Your task to perform on an android device: Search for dell alienware on amazon, select the first entry, add it to the cart, then select checkout. Image 0: 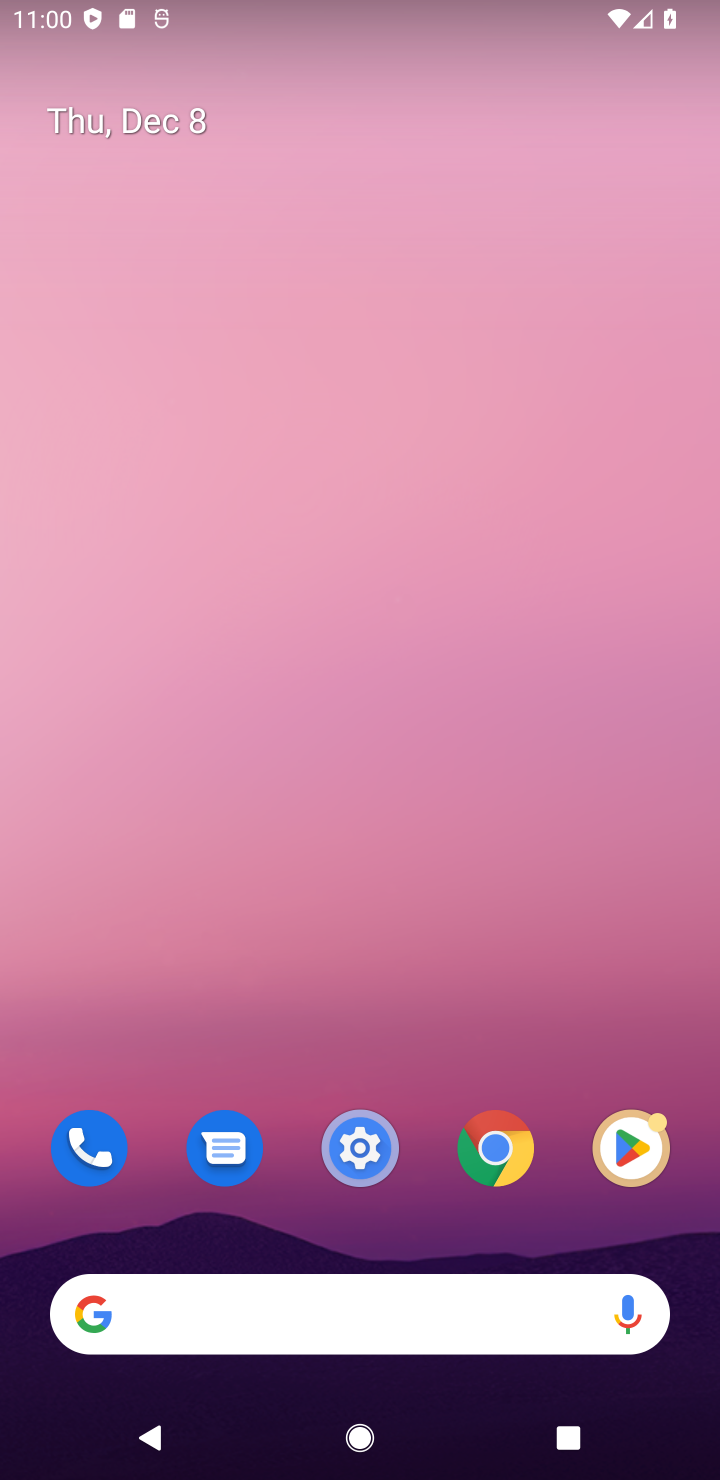
Step 0: click (340, 1315)
Your task to perform on an android device: Search for dell alienware on amazon, select the first entry, add it to the cart, then select checkout. Image 1: 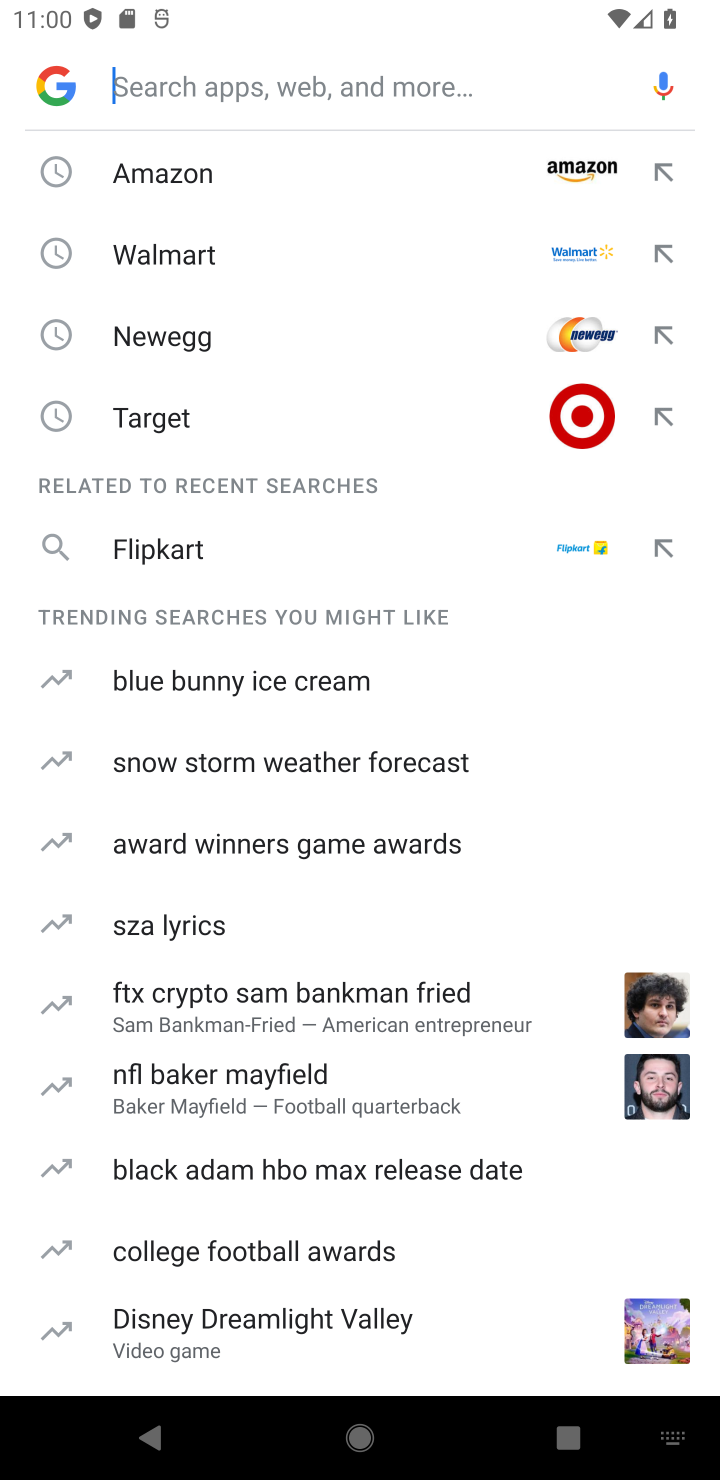
Step 1: click (147, 178)
Your task to perform on an android device: Search for dell alienware on amazon, select the first entry, add it to the cart, then select checkout. Image 2: 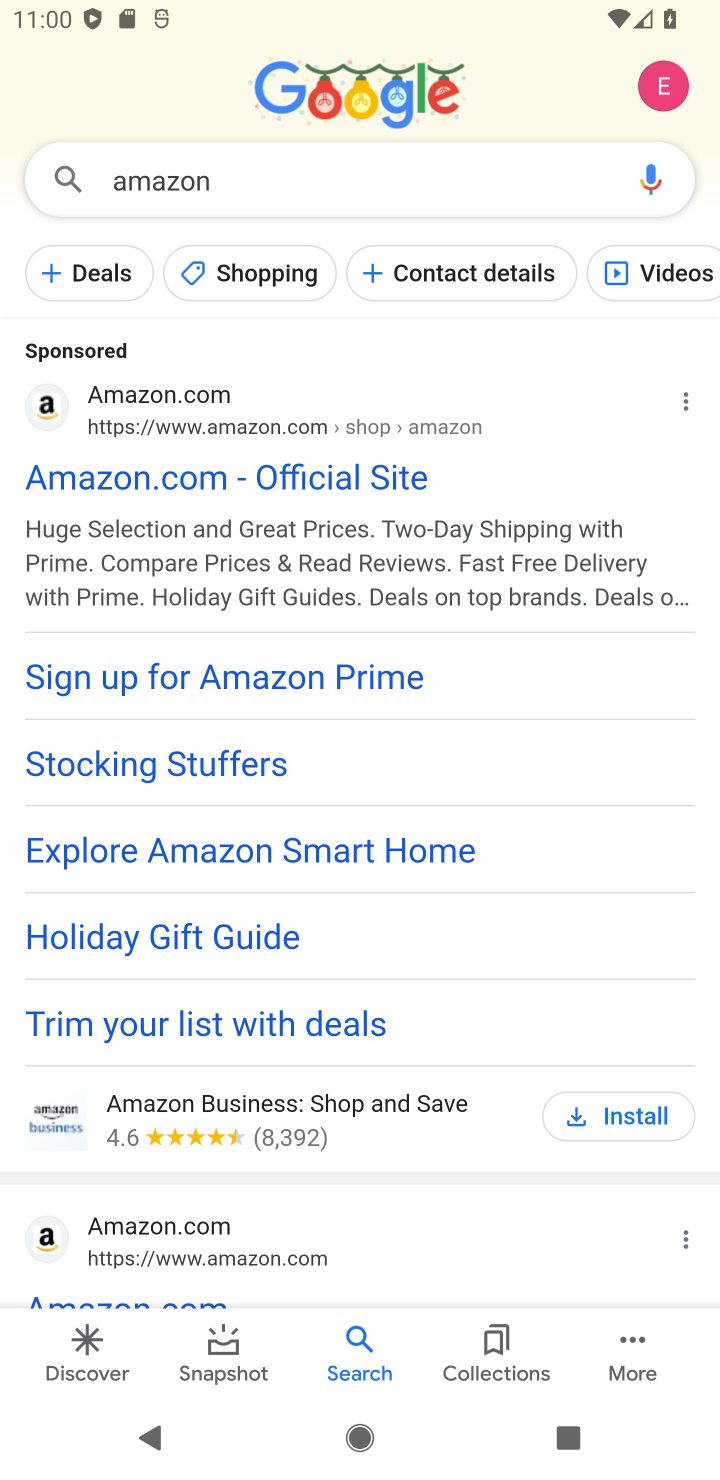
Step 2: click (120, 468)
Your task to perform on an android device: Search for dell alienware on amazon, select the first entry, add it to the cart, then select checkout. Image 3: 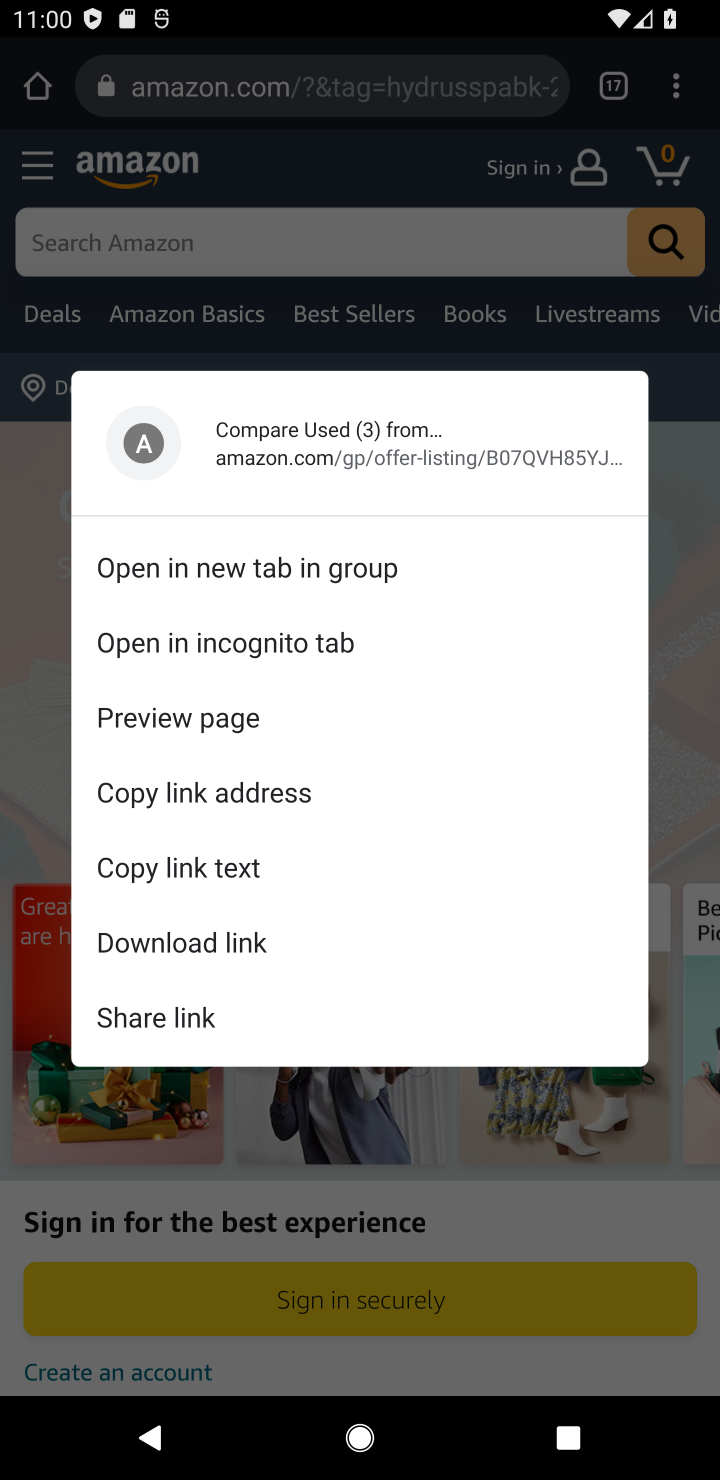
Step 3: click (236, 230)
Your task to perform on an android device: Search for dell alienware on amazon, select the first entry, add it to the cart, then select checkout. Image 4: 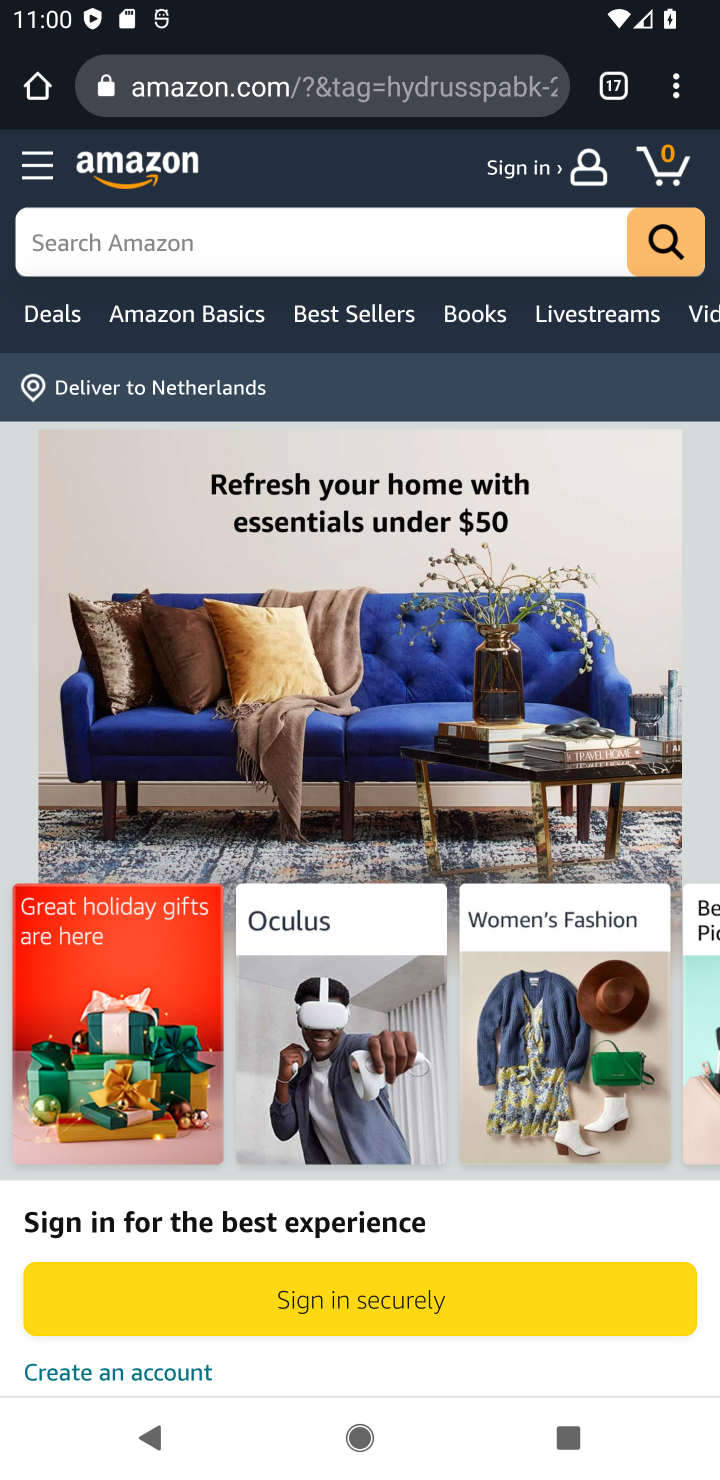
Step 4: click (159, 235)
Your task to perform on an android device: Search for dell alienware on amazon, select the first entry, add it to the cart, then select checkout. Image 5: 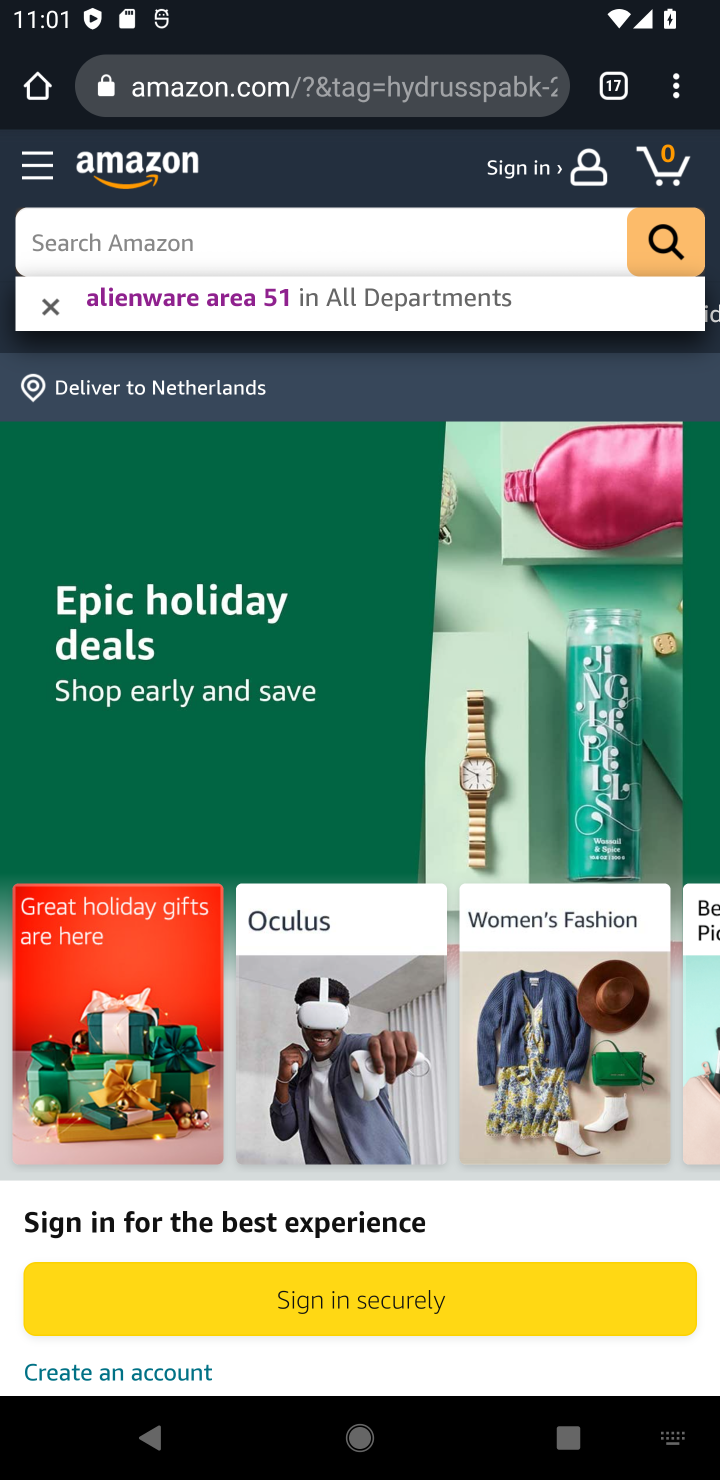
Step 5: type "dell alienware on amazon"
Your task to perform on an android device: Search for dell alienware on amazon, select the first entry, add it to the cart, then select checkout. Image 6: 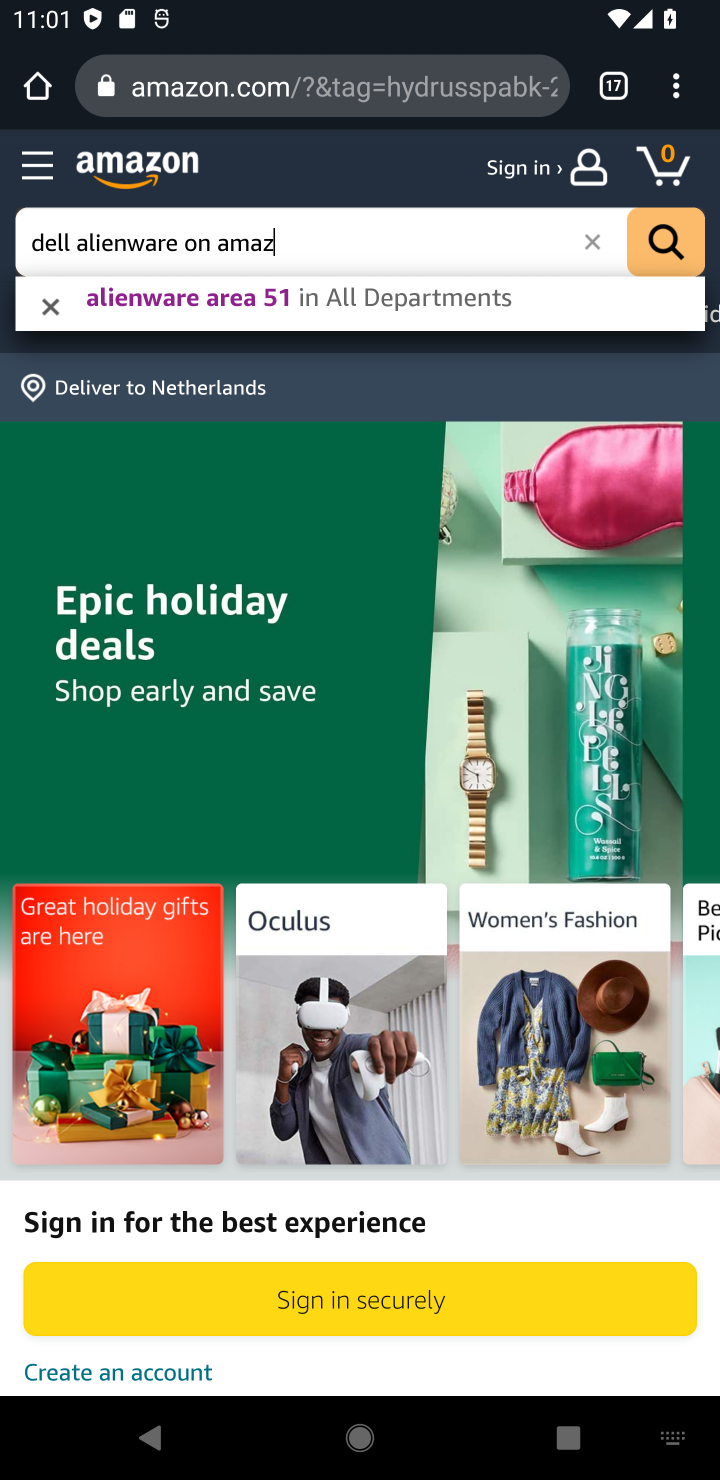
Step 6: type ""
Your task to perform on an android device: Search for dell alienware on amazon, select the first entry, add it to the cart, then select checkout. Image 7: 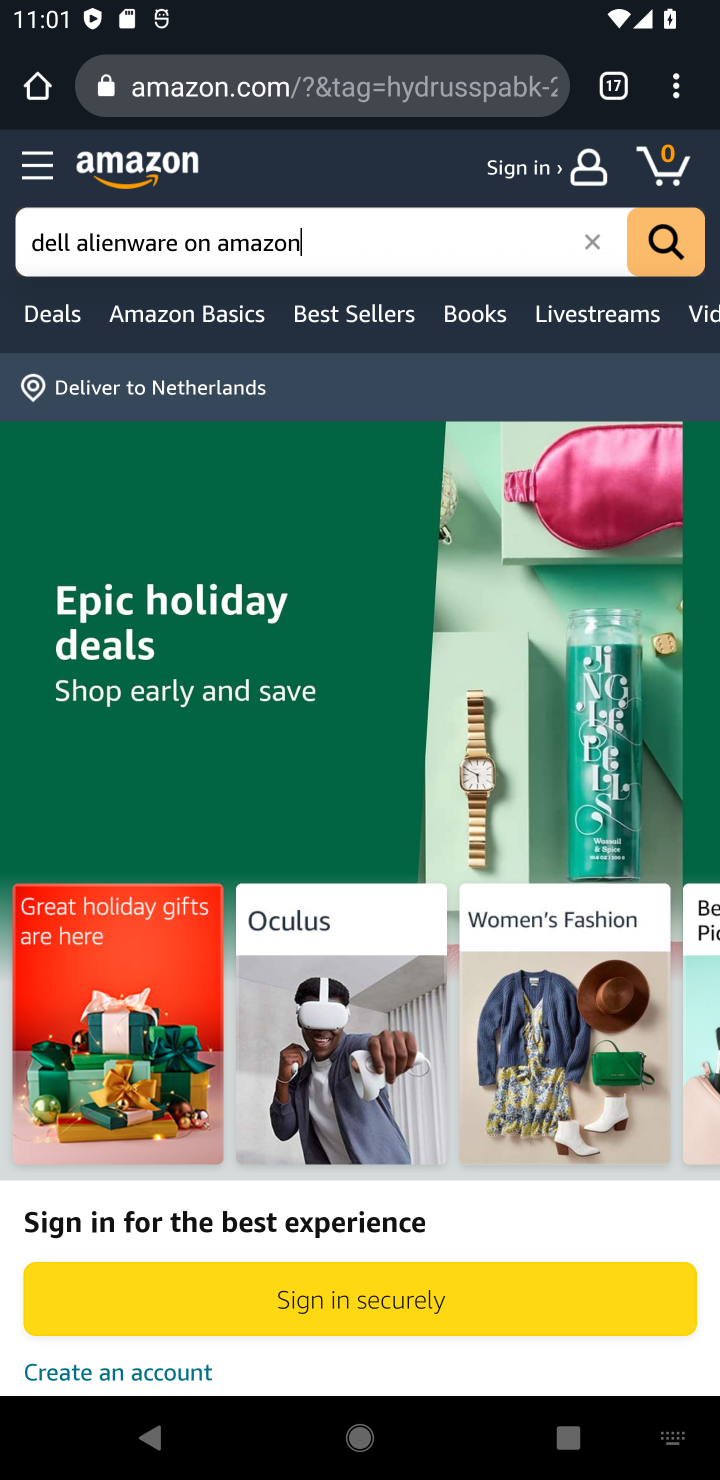
Step 7: click (662, 242)
Your task to perform on an android device: Search for dell alienware on amazon, select the first entry, add it to the cart, then select checkout. Image 8: 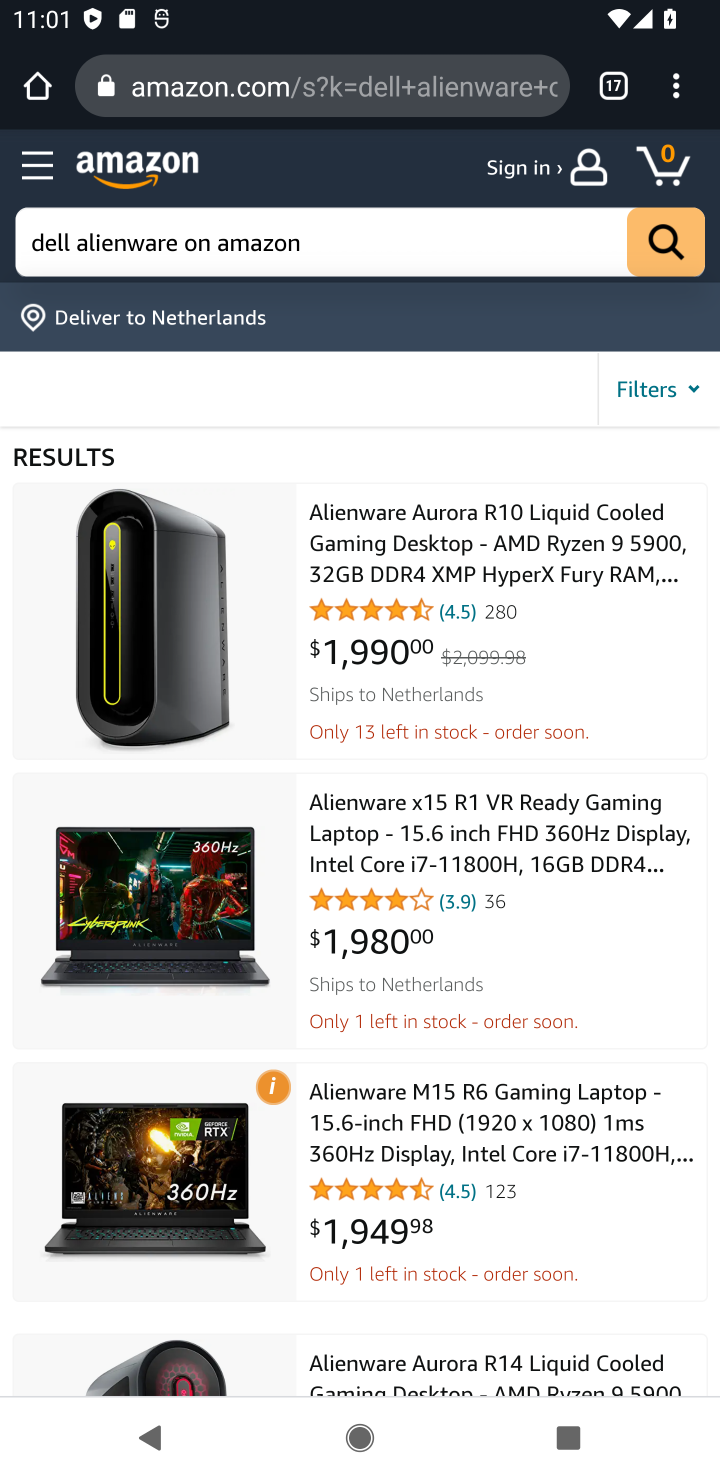
Step 8: click (490, 526)
Your task to perform on an android device: Search for dell alienware on amazon, select the first entry, add it to the cart, then select checkout. Image 9: 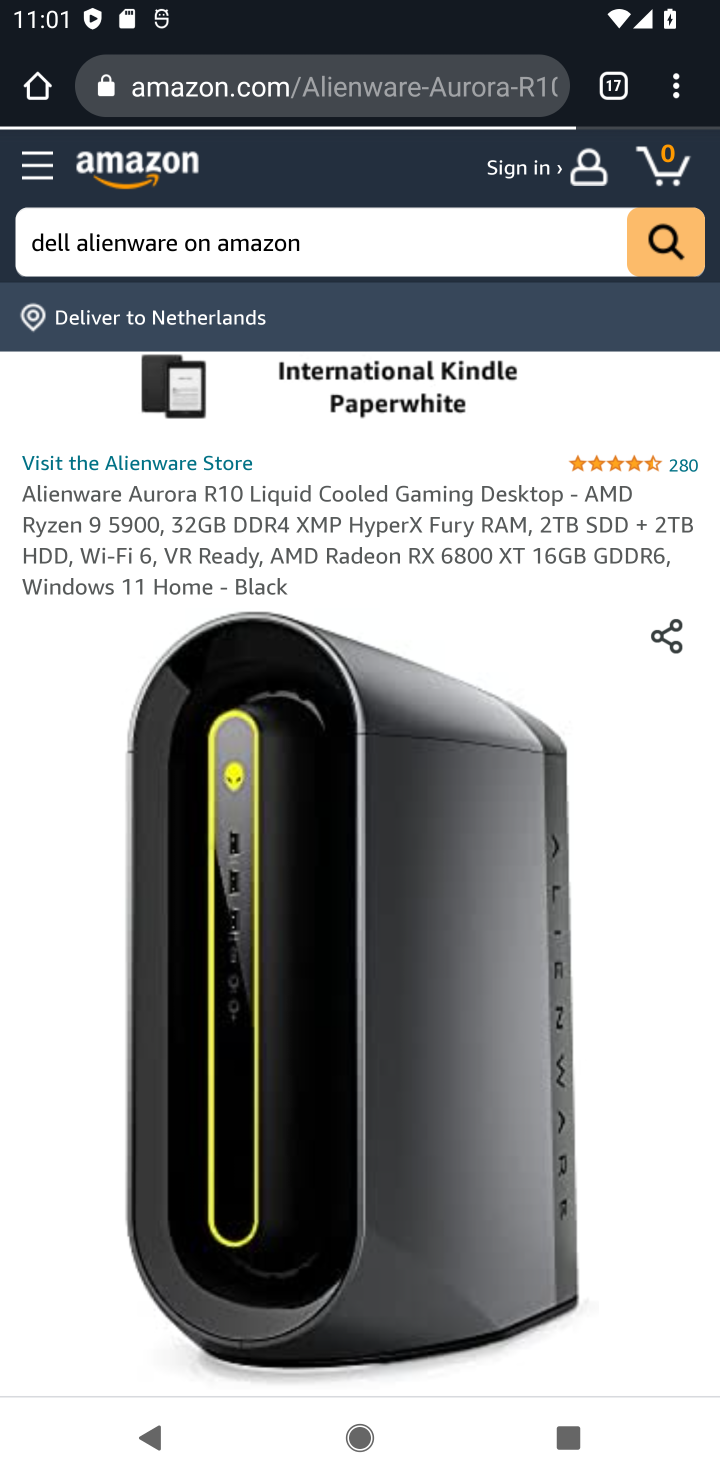
Step 9: drag from (614, 1155) to (575, 657)
Your task to perform on an android device: Search for dell alienware on amazon, select the first entry, add it to the cart, then select checkout. Image 10: 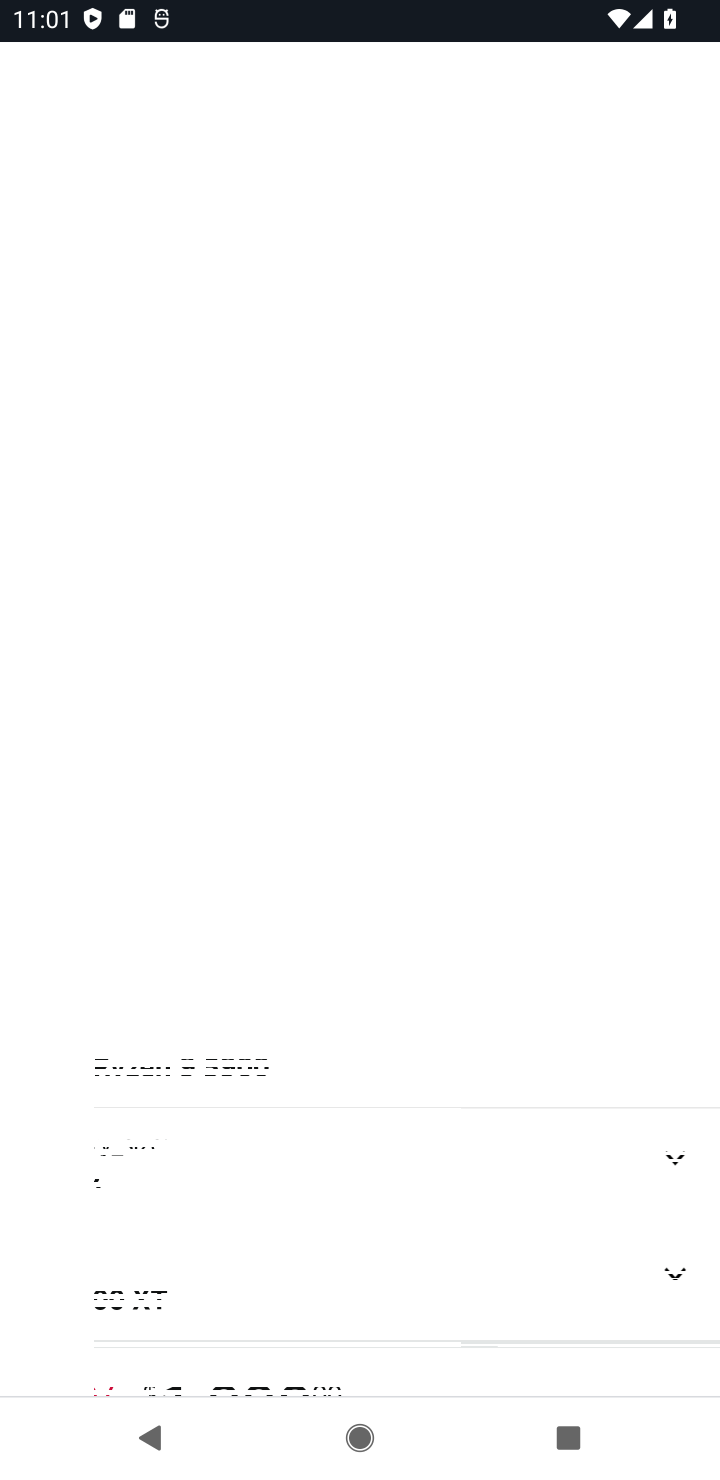
Step 10: drag from (531, 864) to (506, 539)
Your task to perform on an android device: Search for dell alienware on amazon, select the first entry, add it to the cart, then select checkout. Image 11: 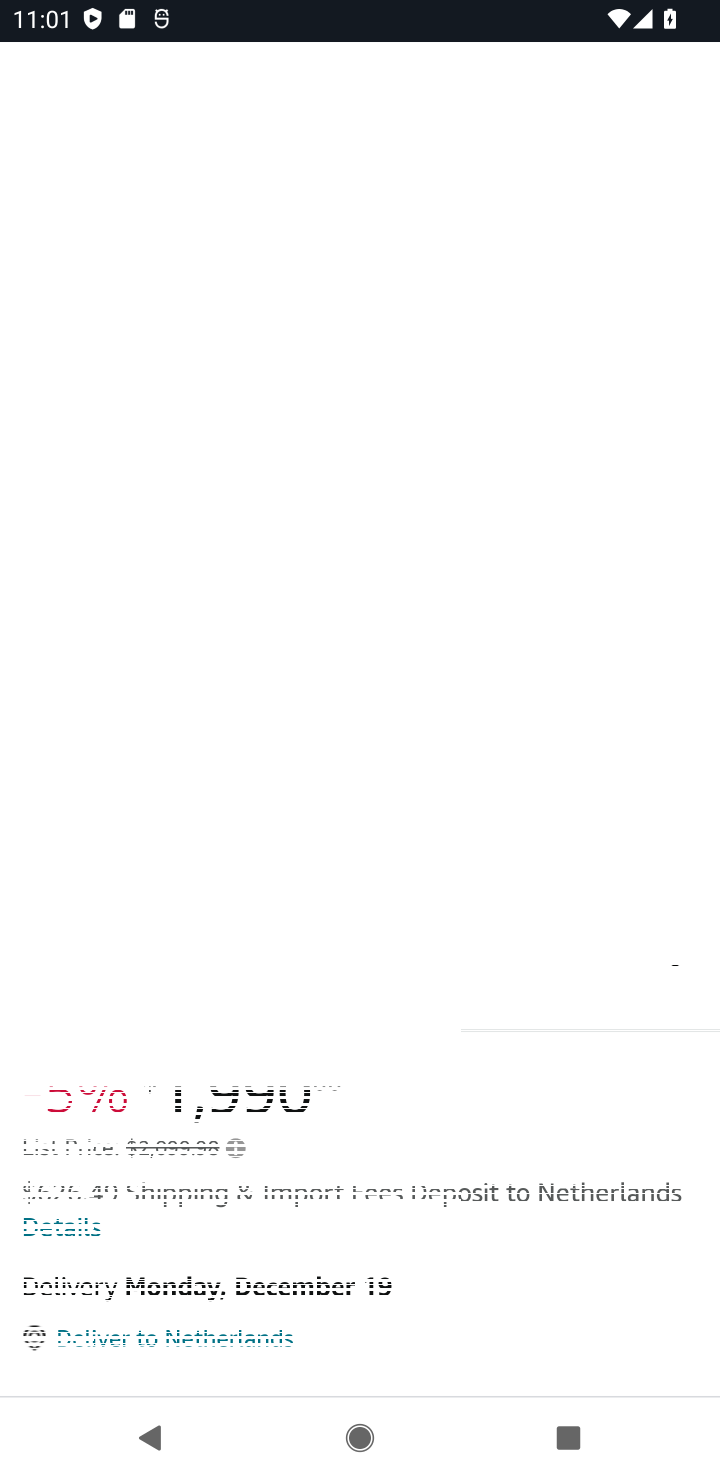
Step 11: drag from (449, 1012) to (417, 605)
Your task to perform on an android device: Search for dell alienware on amazon, select the first entry, add it to the cart, then select checkout. Image 12: 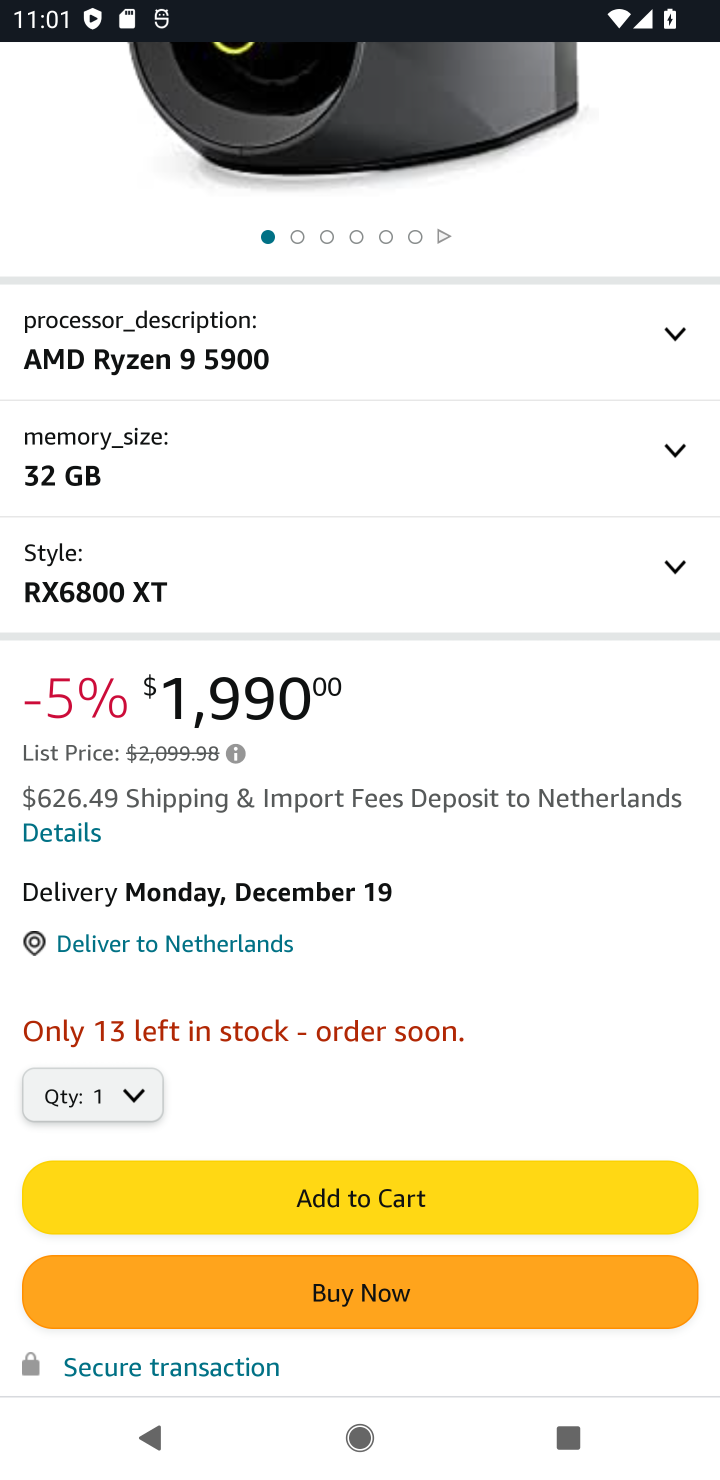
Step 12: click (352, 1198)
Your task to perform on an android device: Search for dell alienware on amazon, select the first entry, add it to the cart, then select checkout. Image 13: 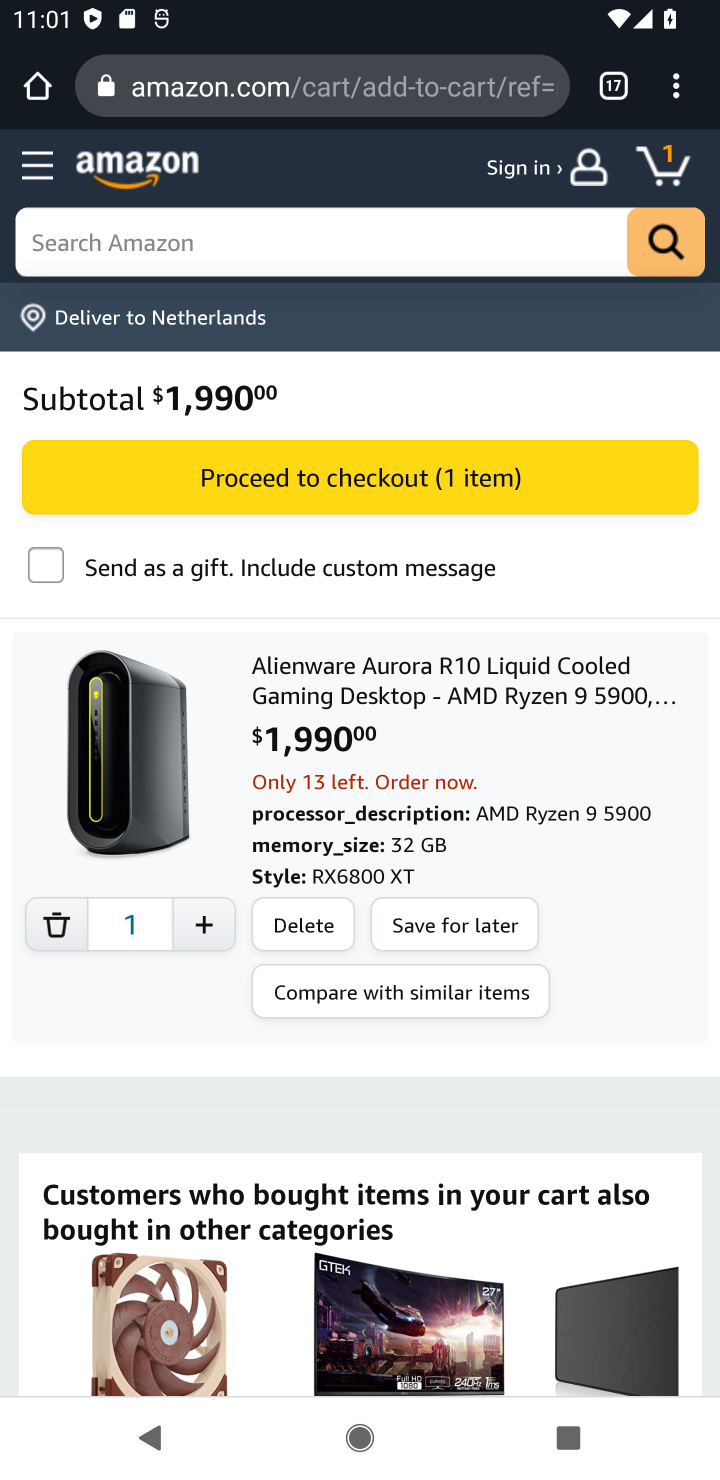
Step 13: click (379, 478)
Your task to perform on an android device: Search for dell alienware on amazon, select the first entry, add it to the cart, then select checkout. Image 14: 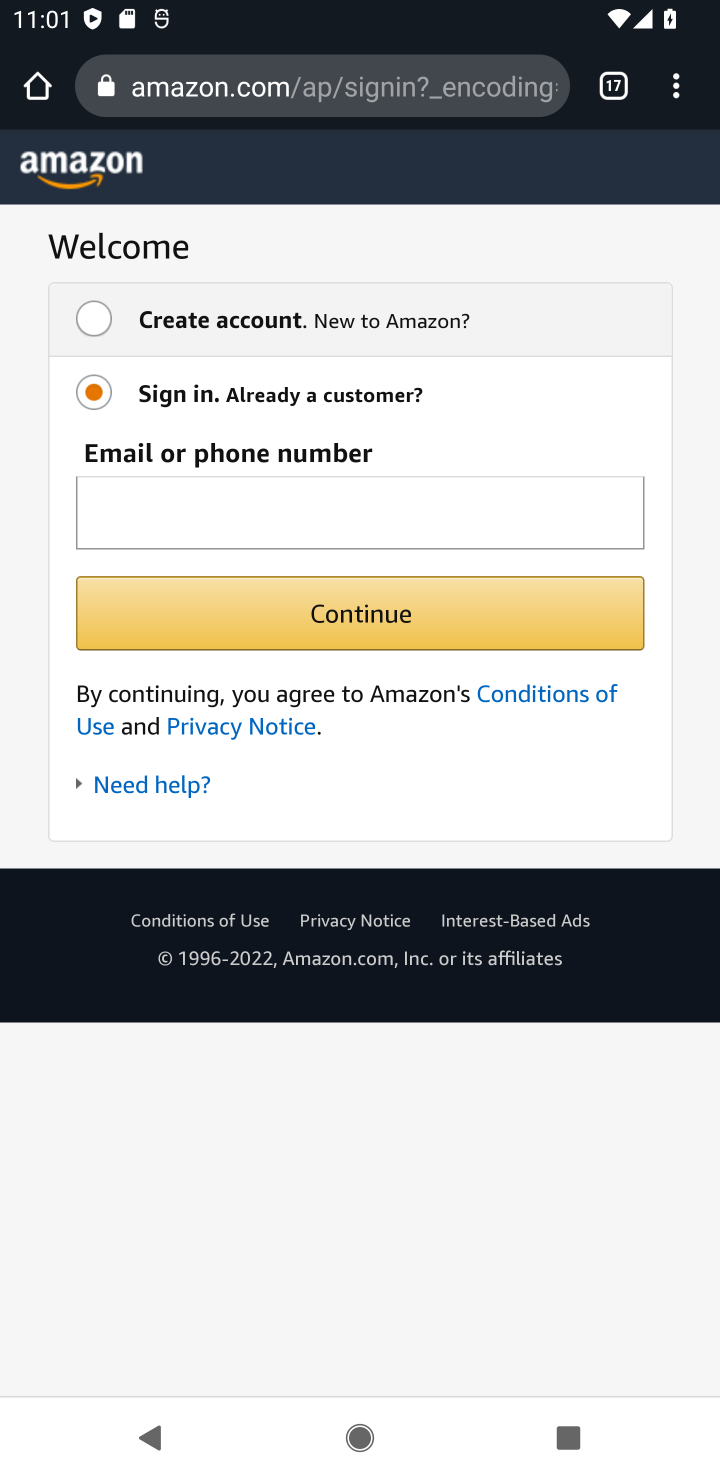
Step 14: task complete